Your task to perform on an android device: Open the map Image 0: 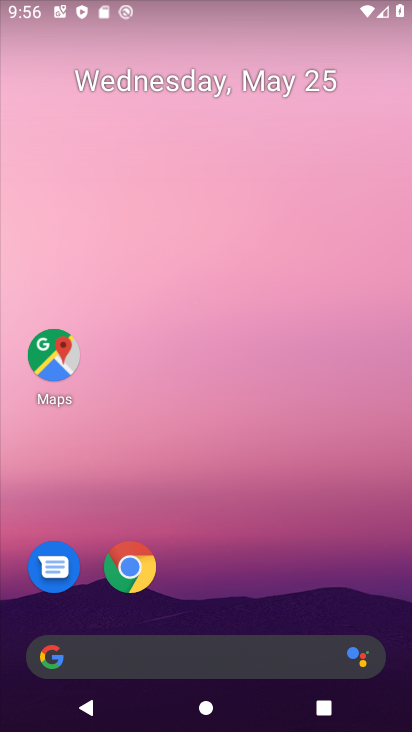
Step 0: click (58, 388)
Your task to perform on an android device: Open the map Image 1: 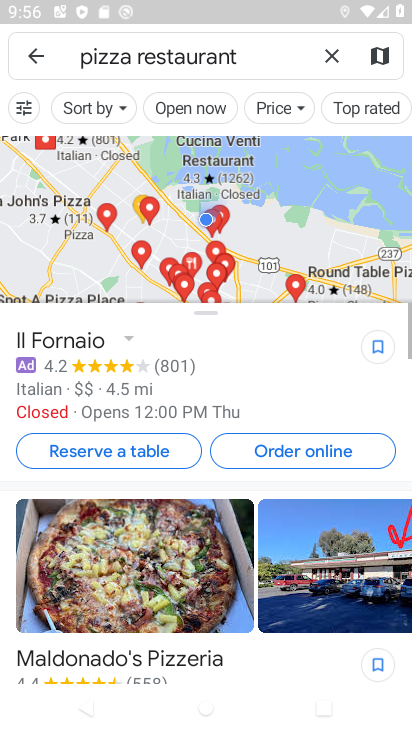
Step 1: task complete